Your task to perform on an android device: toggle priority inbox in the gmail app Image 0: 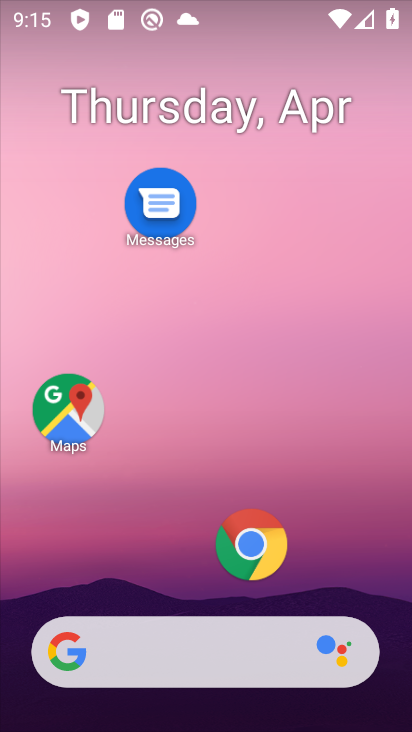
Step 0: press home button
Your task to perform on an android device: toggle priority inbox in the gmail app Image 1: 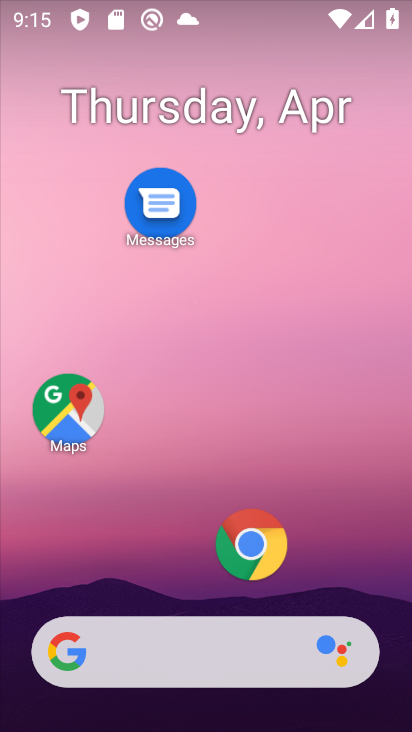
Step 1: drag from (210, 615) to (210, 202)
Your task to perform on an android device: toggle priority inbox in the gmail app Image 2: 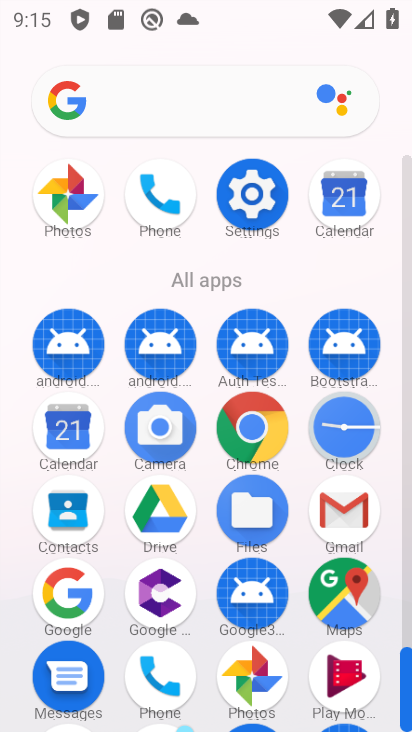
Step 2: click (333, 517)
Your task to perform on an android device: toggle priority inbox in the gmail app Image 3: 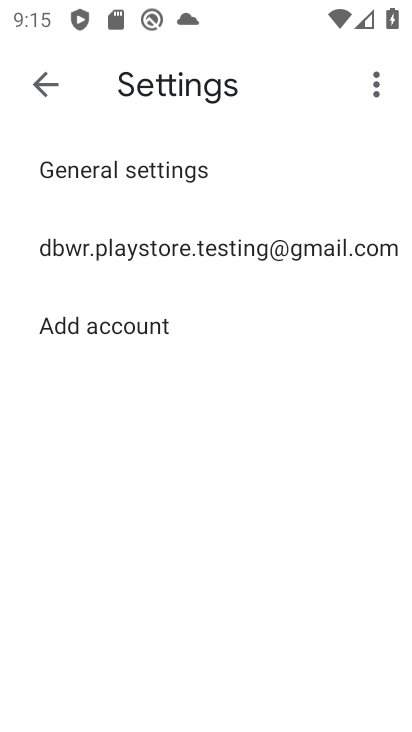
Step 3: click (161, 248)
Your task to perform on an android device: toggle priority inbox in the gmail app Image 4: 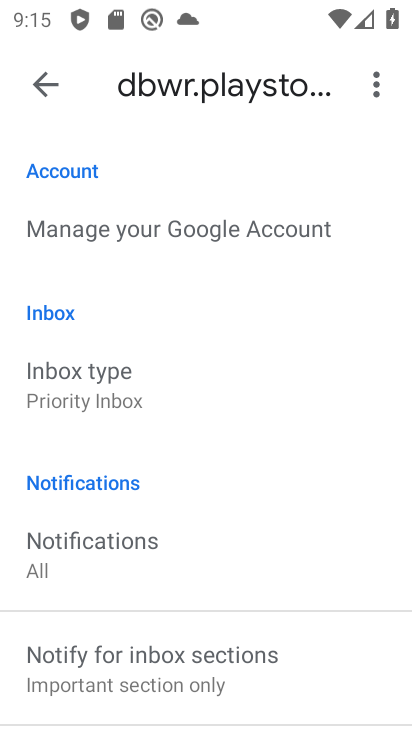
Step 4: click (99, 380)
Your task to perform on an android device: toggle priority inbox in the gmail app Image 5: 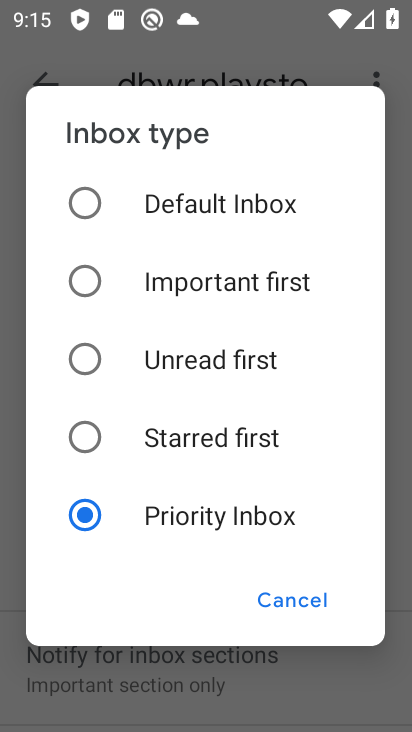
Step 5: click (84, 200)
Your task to perform on an android device: toggle priority inbox in the gmail app Image 6: 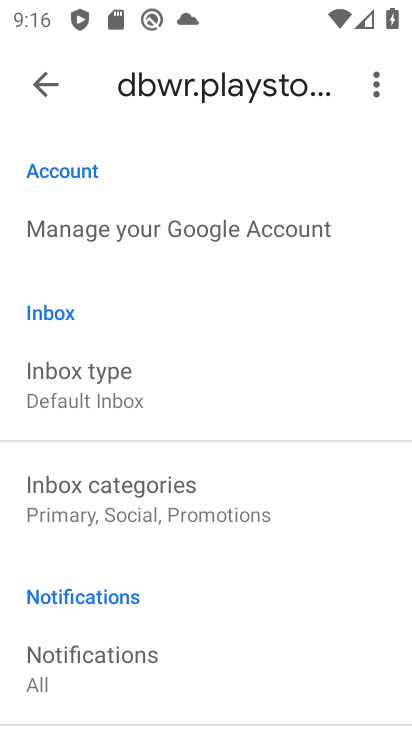
Step 6: task complete